Your task to perform on an android device: turn on javascript in the chrome app Image 0: 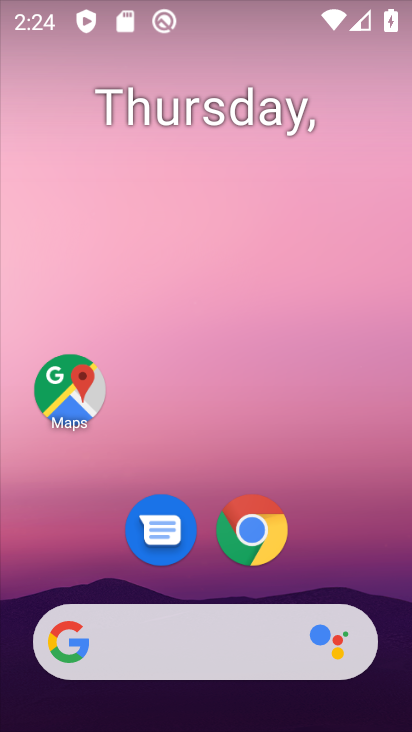
Step 0: drag from (367, 564) to (367, 57)
Your task to perform on an android device: turn on javascript in the chrome app Image 1: 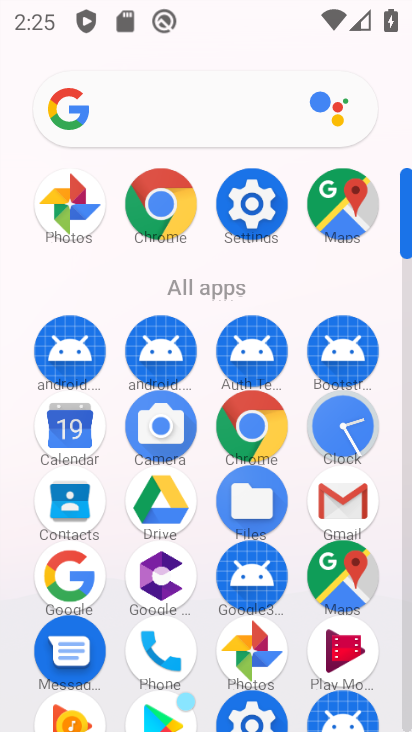
Step 1: click (402, 559)
Your task to perform on an android device: turn on javascript in the chrome app Image 2: 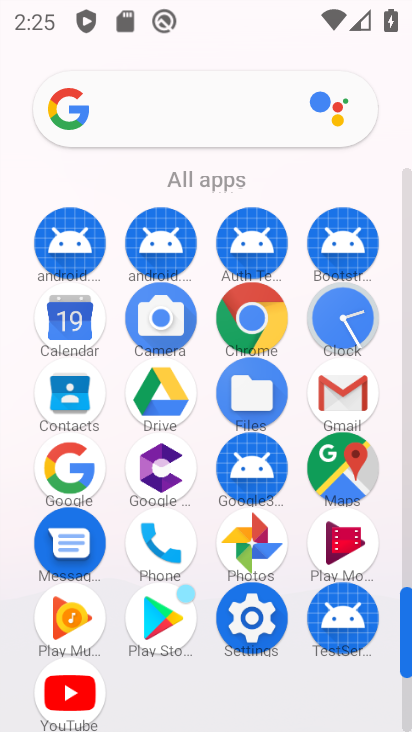
Step 2: click (250, 629)
Your task to perform on an android device: turn on javascript in the chrome app Image 3: 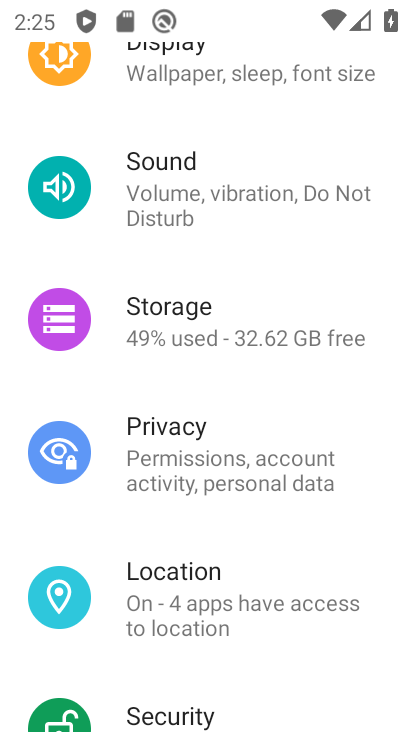
Step 3: drag from (250, 594) to (258, 338)
Your task to perform on an android device: turn on javascript in the chrome app Image 4: 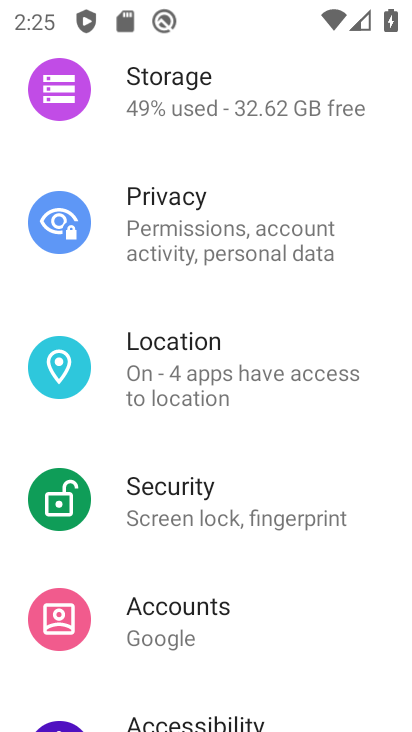
Step 4: press home button
Your task to perform on an android device: turn on javascript in the chrome app Image 5: 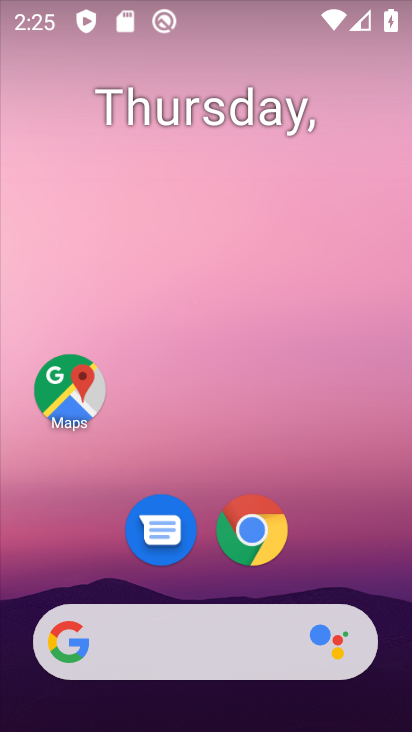
Step 5: drag from (343, 544) to (287, 667)
Your task to perform on an android device: turn on javascript in the chrome app Image 6: 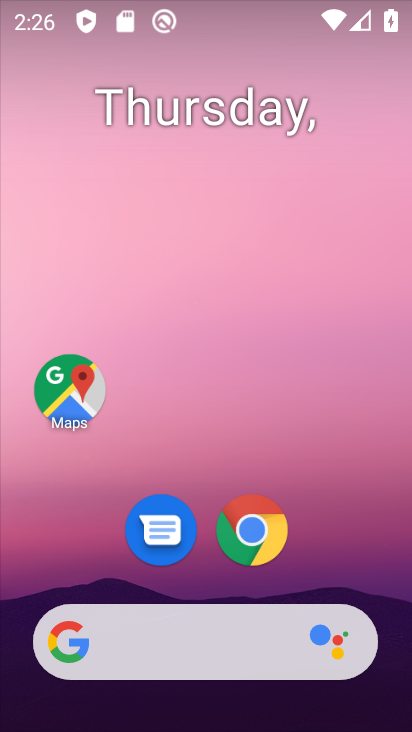
Step 6: click (260, 548)
Your task to perform on an android device: turn on javascript in the chrome app Image 7: 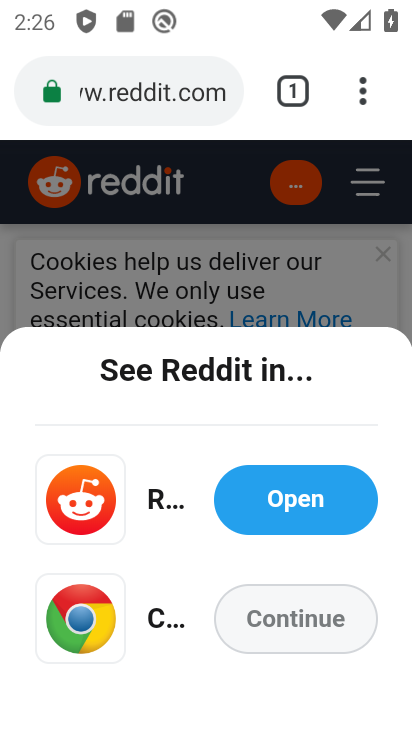
Step 7: drag from (363, 91) to (127, 549)
Your task to perform on an android device: turn on javascript in the chrome app Image 8: 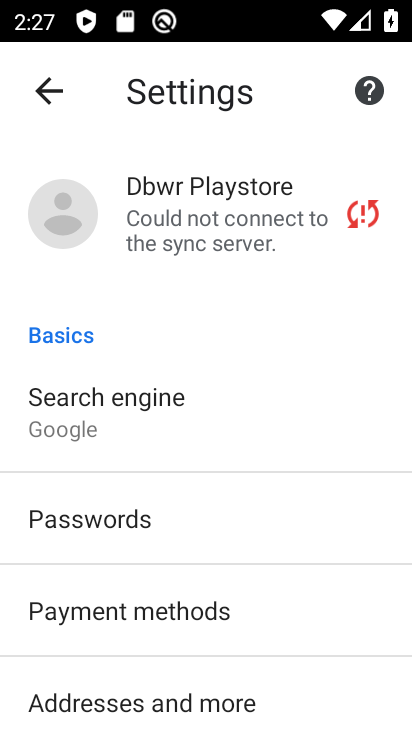
Step 8: drag from (202, 652) to (253, 300)
Your task to perform on an android device: turn on javascript in the chrome app Image 9: 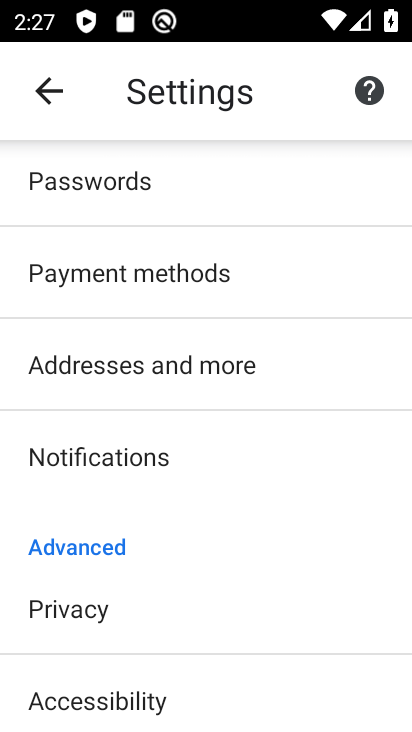
Step 9: drag from (211, 623) to (245, 378)
Your task to perform on an android device: turn on javascript in the chrome app Image 10: 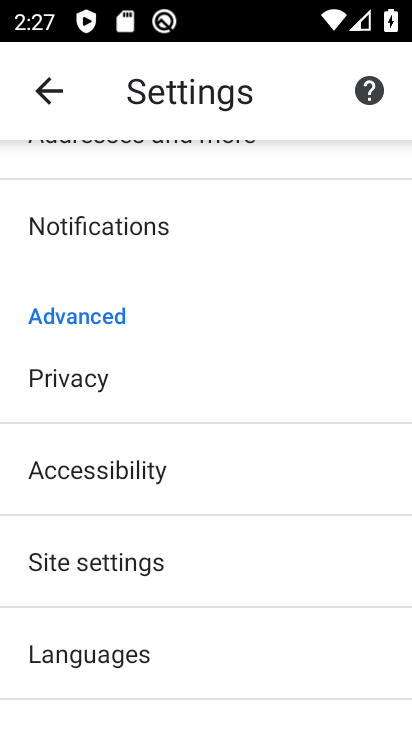
Step 10: click (126, 571)
Your task to perform on an android device: turn on javascript in the chrome app Image 11: 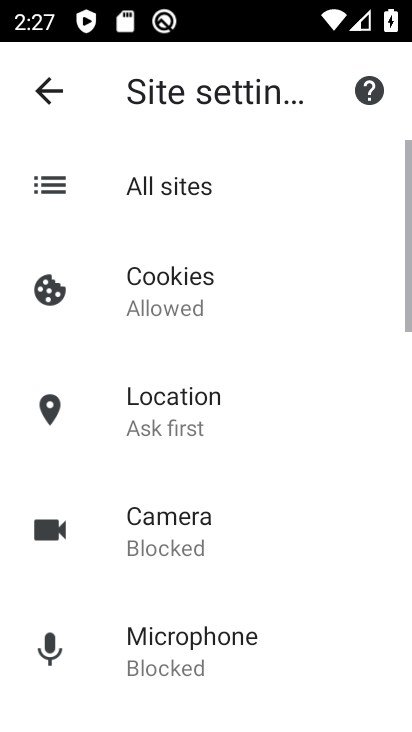
Step 11: drag from (134, 557) to (178, 289)
Your task to perform on an android device: turn on javascript in the chrome app Image 12: 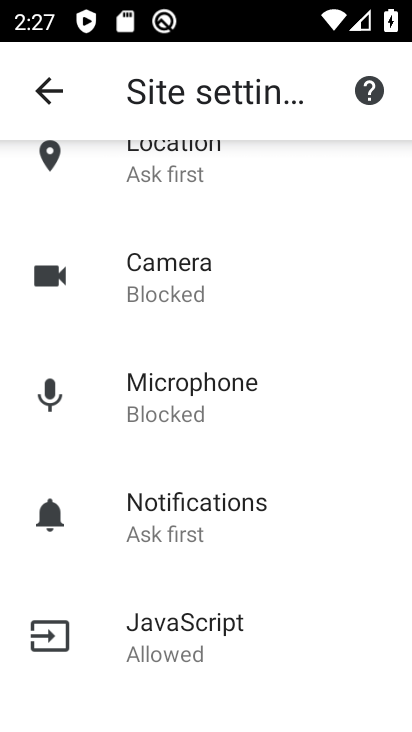
Step 12: click (143, 626)
Your task to perform on an android device: turn on javascript in the chrome app Image 13: 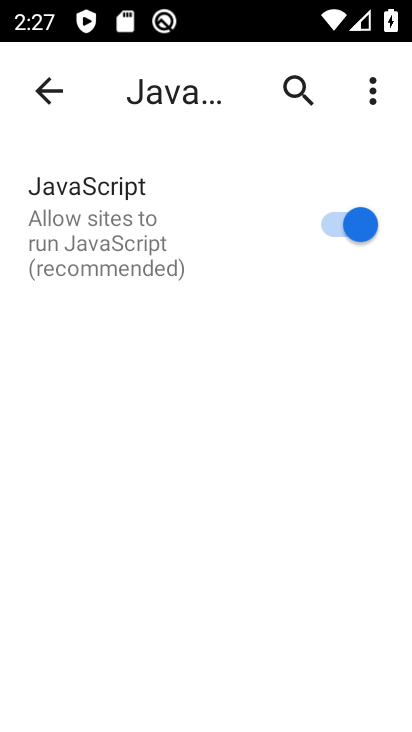
Step 13: task complete